Your task to perform on an android device: uninstall "Spotify: Music and Podcasts" Image 0: 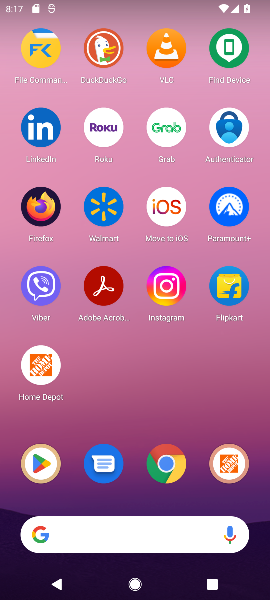
Step 0: click (43, 461)
Your task to perform on an android device: uninstall "Spotify: Music and Podcasts" Image 1: 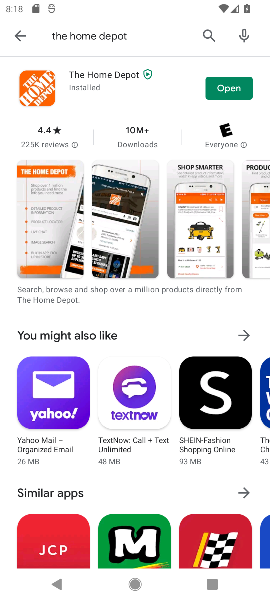
Step 1: click (208, 45)
Your task to perform on an android device: uninstall "Spotify: Music and Podcasts" Image 2: 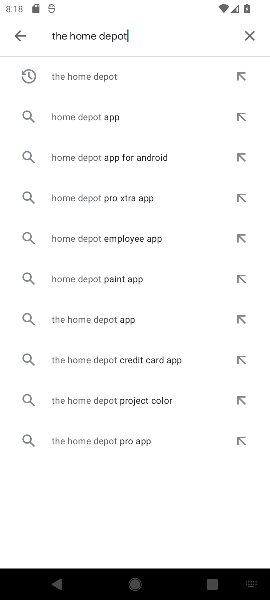
Step 2: click (256, 29)
Your task to perform on an android device: uninstall "Spotify: Music and Podcasts" Image 3: 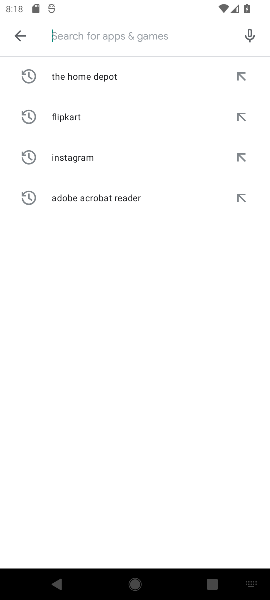
Step 3: type "spotify"
Your task to perform on an android device: uninstall "Spotify: Music and Podcasts" Image 4: 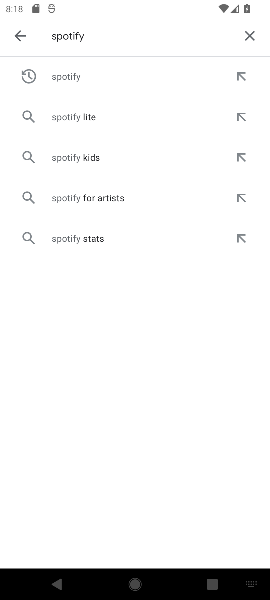
Step 4: click (128, 85)
Your task to perform on an android device: uninstall "Spotify: Music and Podcasts" Image 5: 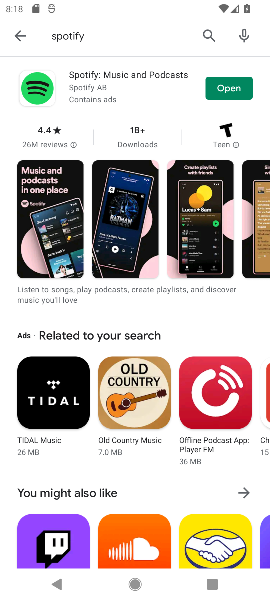
Step 5: click (229, 89)
Your task to perform on an android device: uninstall "Spotify: Music and Podcasts" Image 6: 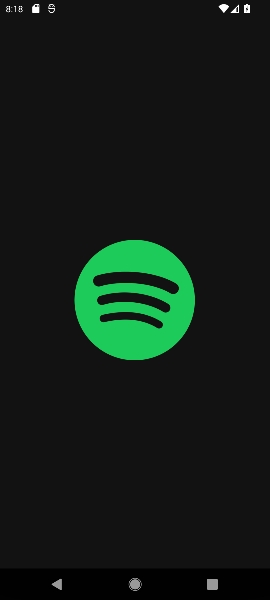
Step 6: press home button
Your task to perform on an android device: uninstall "Spotify: Music and Podcasts" Image 7: 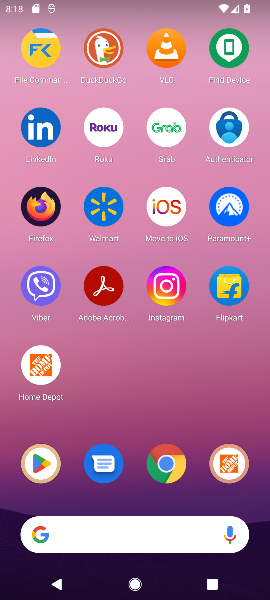
Step 7: drag from (144, 395) to (152, 46)
Your task to perform on an android device: uninstall "Spotify: Music and Podcasts" Image 8: 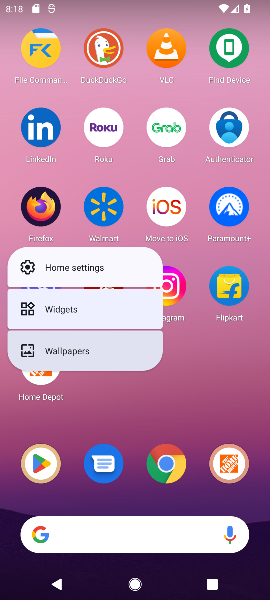
Step 8: click (197, 370)
Your task to perform on an android device: uninstall "Spotify: Music and Podcasts" Image 9: 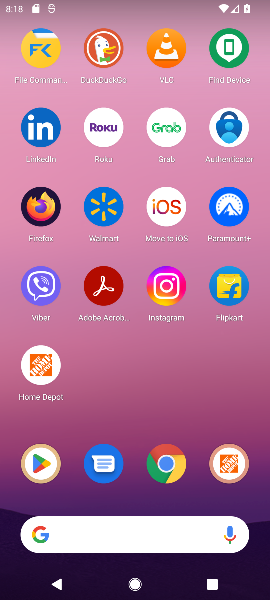
Step 9: task complete